Your task to perform on an android device: allow notifications from all sites in the chrome app Image 0: 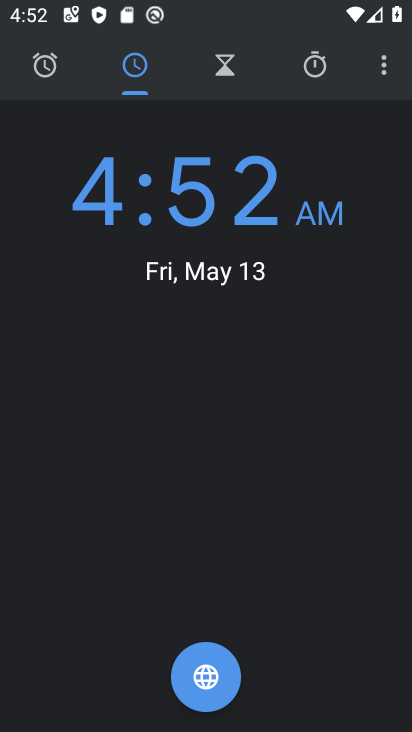
Step 0: press home button
Your task to perform on an android device: allow notifications from all sites in the chrome app Image 1: 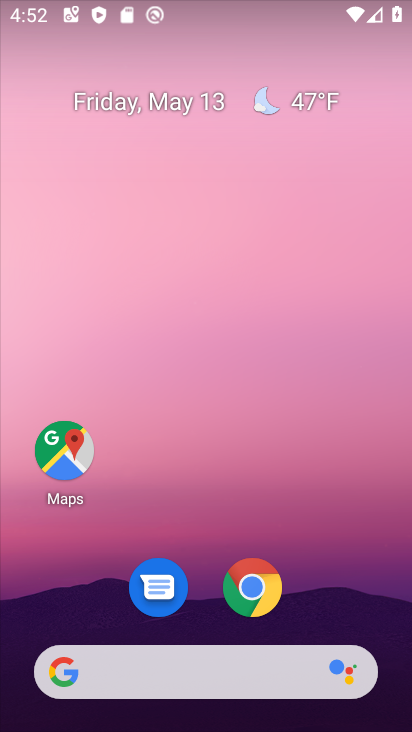
Step 1: click (271, 597)
Your task to perform on an android device: allow notifications from all sites in the chrome app Image 2: 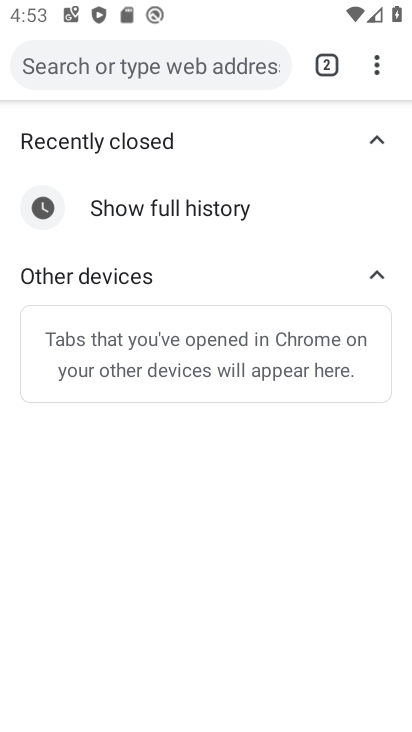
Step 2: drag from (374, 69) to (167, 538)
Your task to perform on an android device: allow notifications from all sites in the chrome app Image 3: 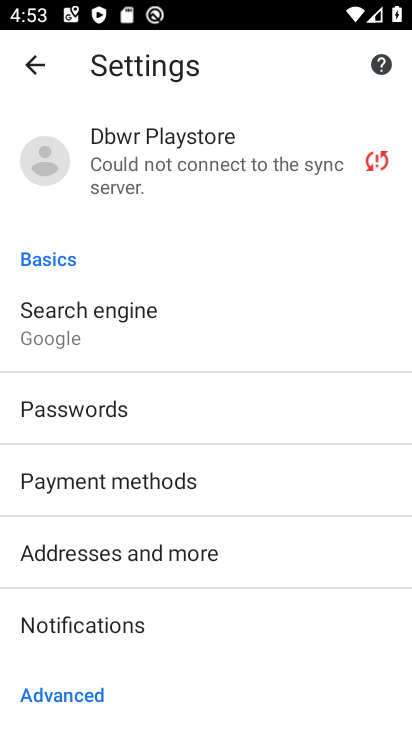
Step 3: drag from (246, 608) to (264, 176)
Your task to perform on an android device: allow notifications from all sites in the chrome app Image 4: 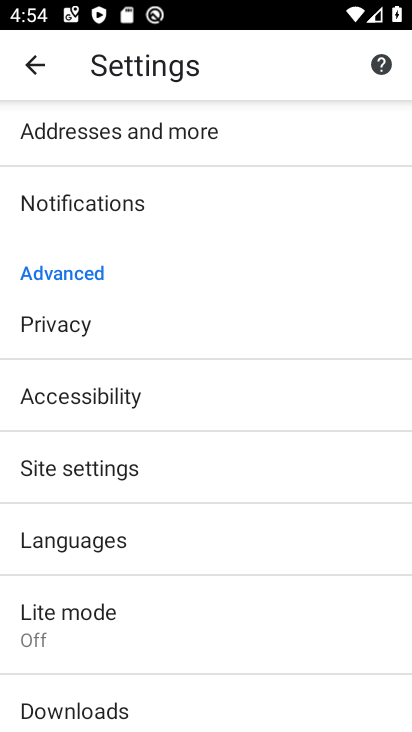
Step 4: click (83, 463)
Your task to perform on an android device: allow notifications from all sites in the chrome app Image 5: 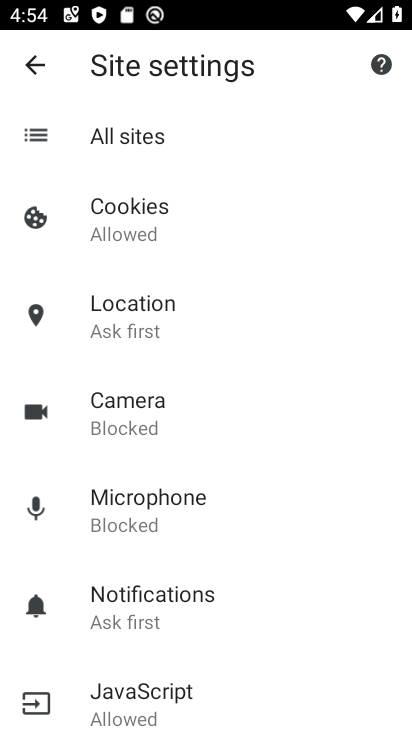
Step 5: click (125, 134)
Your task to perform on an android device: allow notifications from all sites in the chrome app Image 6: 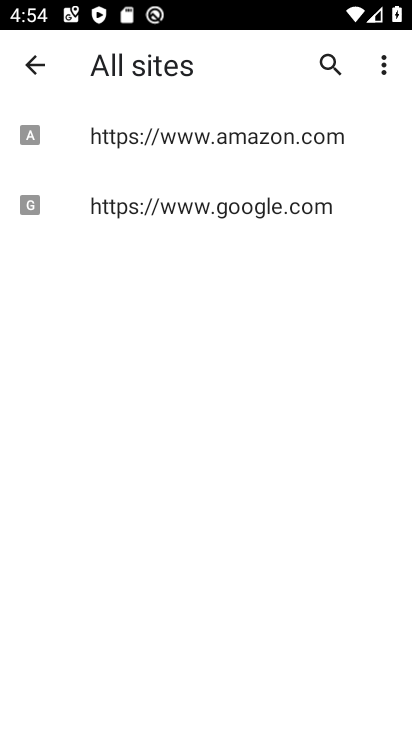
Step 6: task complete